Your task to perform on an android device: What's the weather today? Image 0: 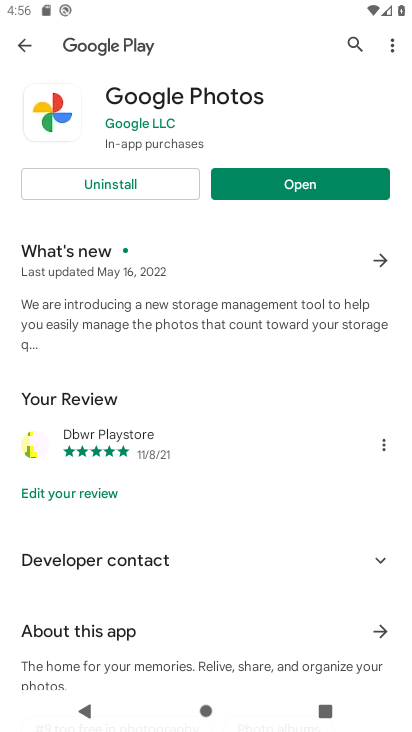
Step 0: press home button
Your task to perform on an android device: What's the weather today? Image 1: 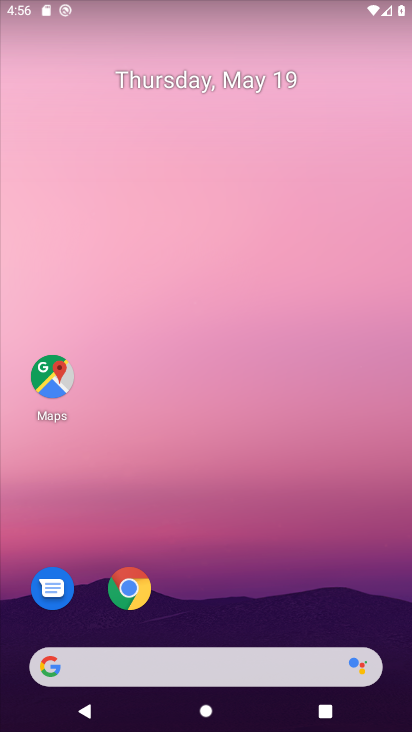
Step 1: click (139, 652)
Your task to perform on an android device: What's the weather today? Image 2: 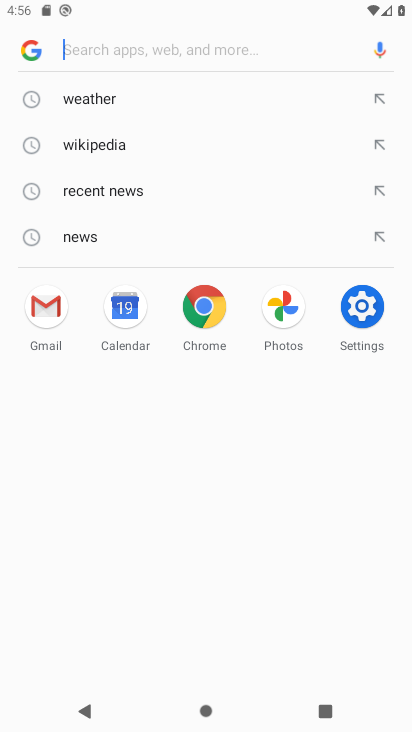
Step 2: click (162, 669)
Your task to perform on an android device: What's the weather today? Image 3: 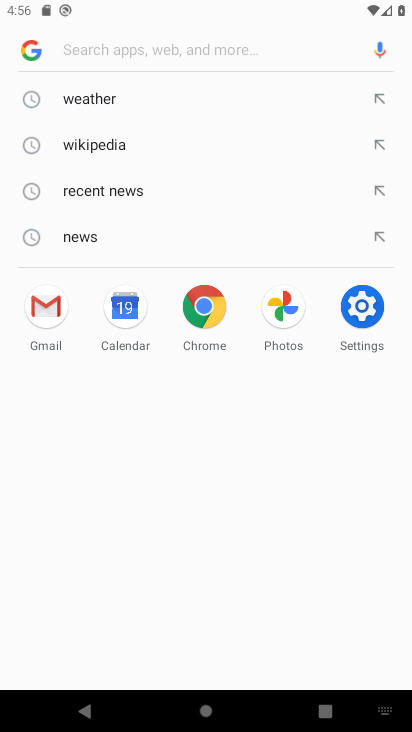
Step 3: type "weather today?"
Your task to perform on an android device: What's the weather today? Image 4: 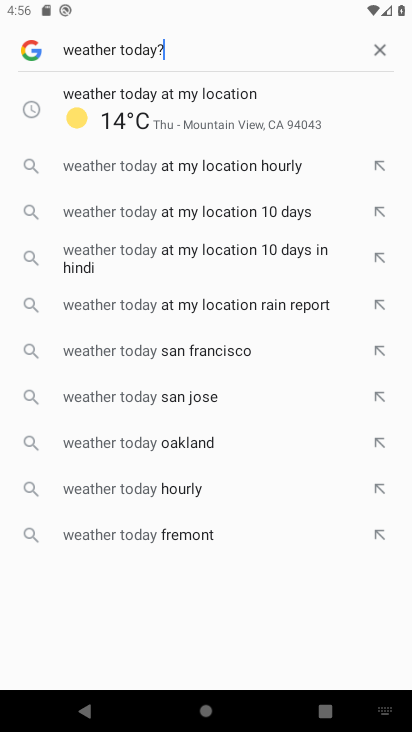
Step 4: click (207, 124)
Your task to perform on an android device: What's the weather today? Image 5: 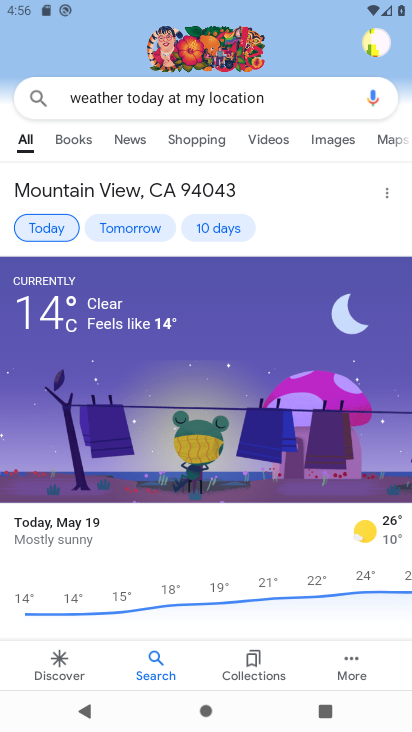
Step 5: task complete